Your task to perform on an android device: open wifi settings Image 0: 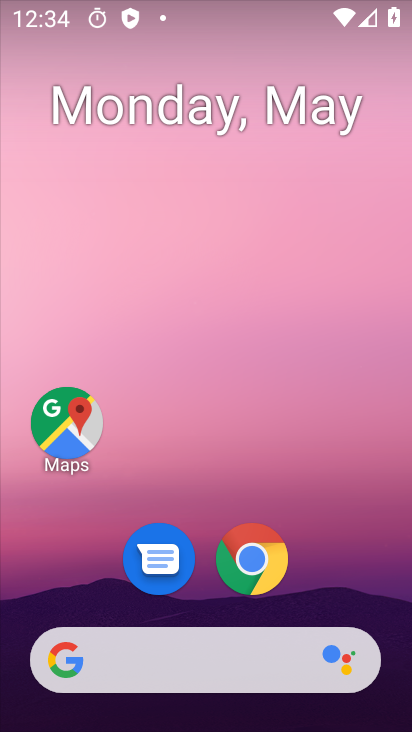
Step 0: drag from (250, 704) to (190, 97)
Your task to perform on an android device: open wifi settings Image 1: 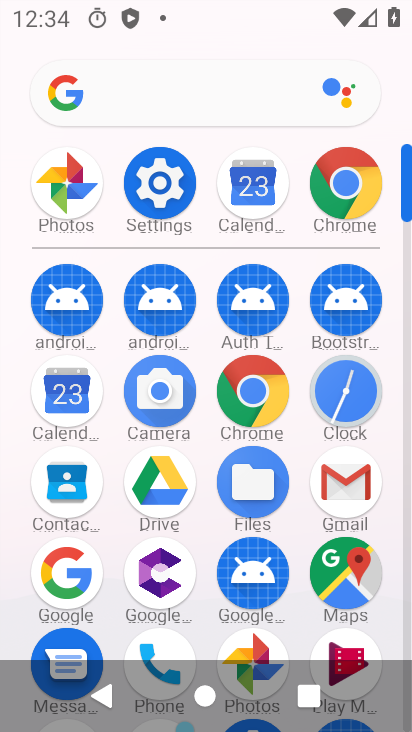
Step 1: click (134, 177)
Your task to perform on an android device: open wifi settings Image 2: 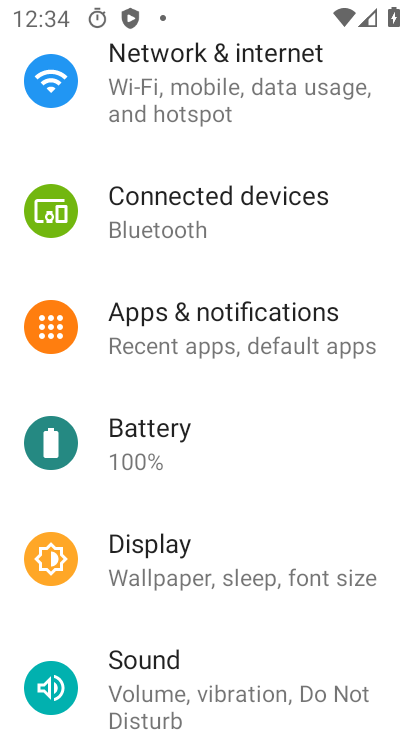
Step 2: click (184, 99)
Your task to perform on an android device: open wifi settings Image 3: 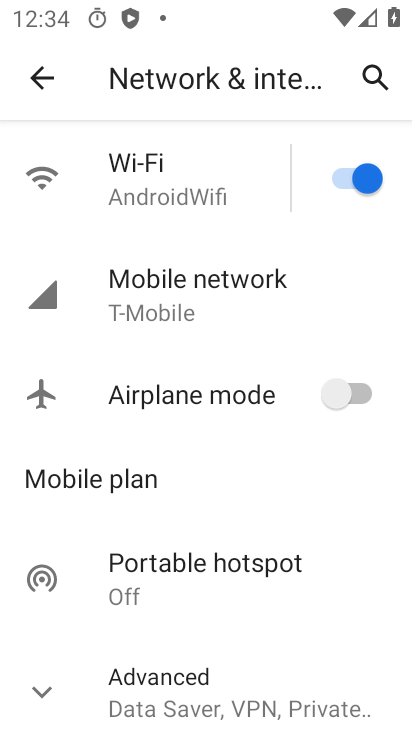
Step 3: click (164, 180)
Your task to perform on an android device: open wifi settings Image 4: 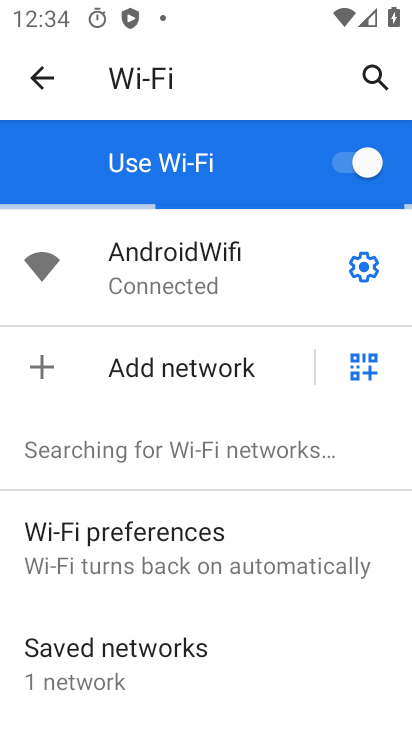
Step 4: task complete